Your task to perform on an android device: Go to calendar. Show me events next week Image 0: 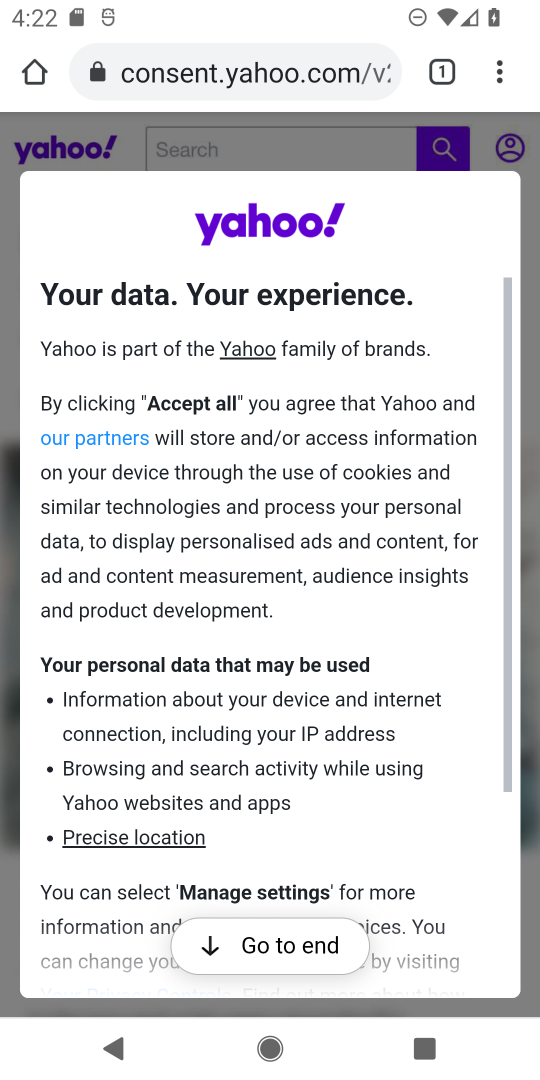
Step 0: press home button
Your task to perform on an android device: Go to calendar. Show me events next week Image 1: 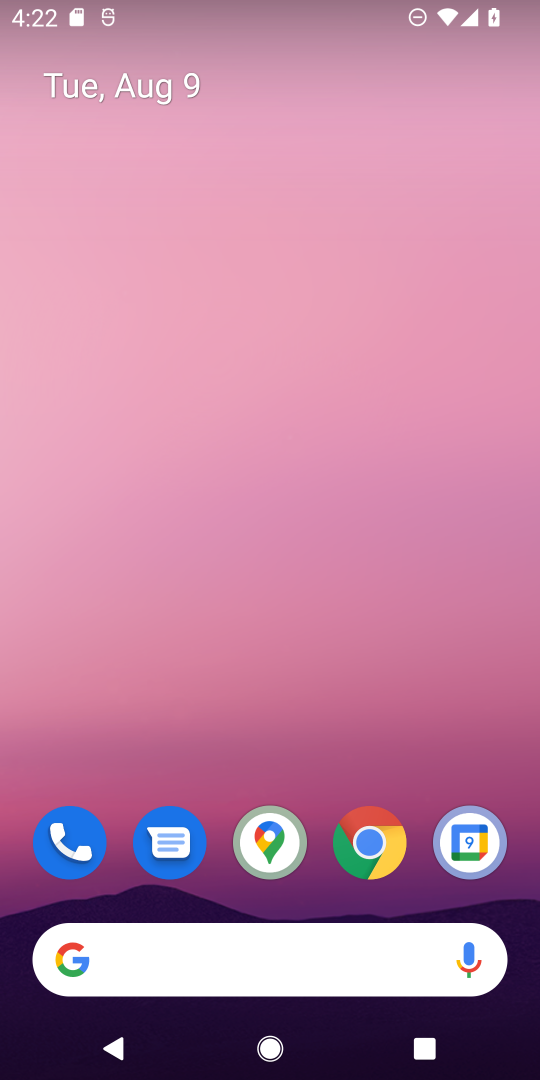
Step 1: drag from (277, 955) to (410, 44)
Your task to perform on an android device: Go to calendar. Show me events next week Image 2: 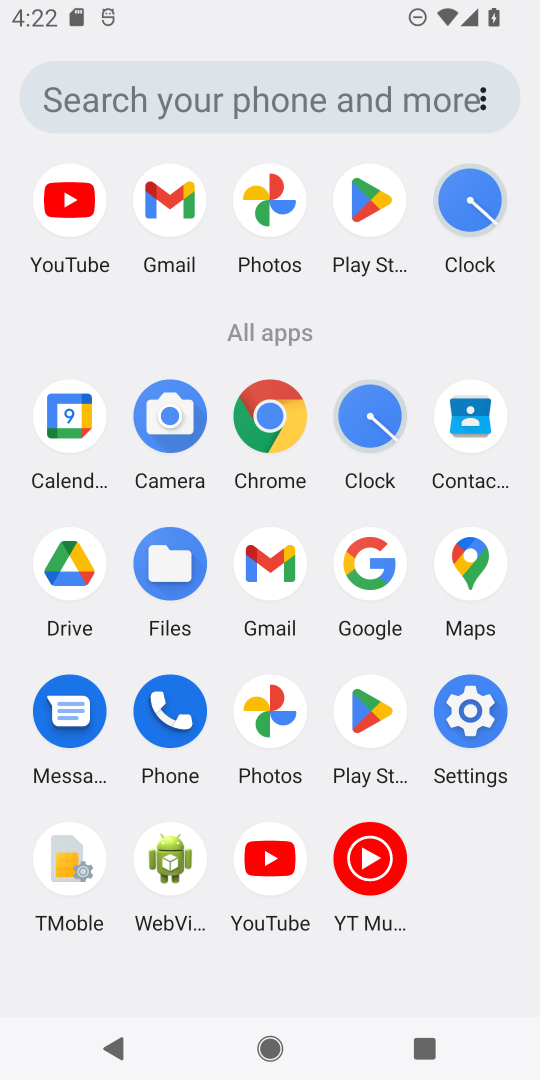
Step 2: click (72, 433)
Your task to perform on an android device: Go to calendar. Show me events next week Image 3: 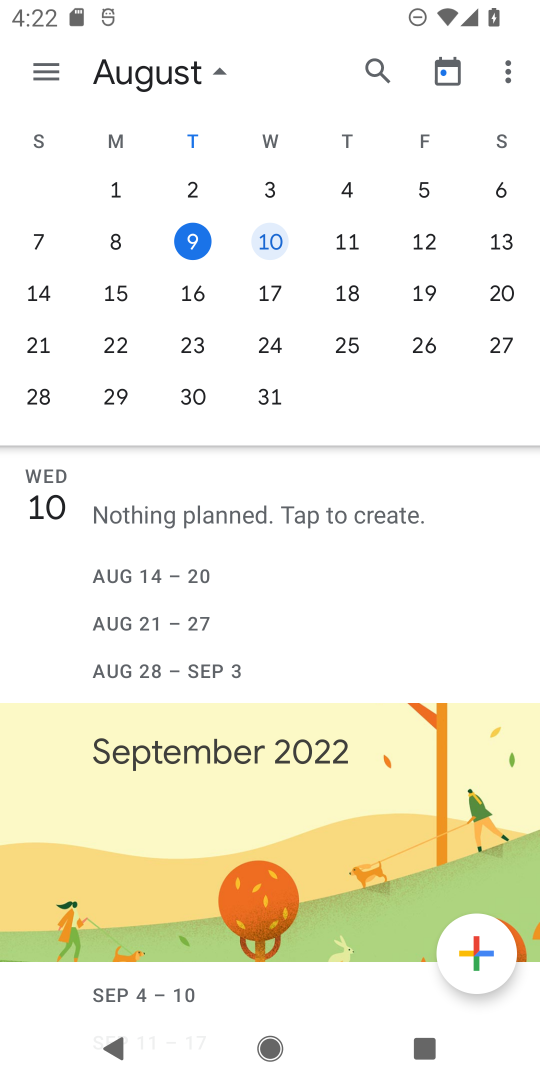
Step 3: click (218, 71)
Your task to perform on an android device: Go to calendar. Show me events next week Image 4: 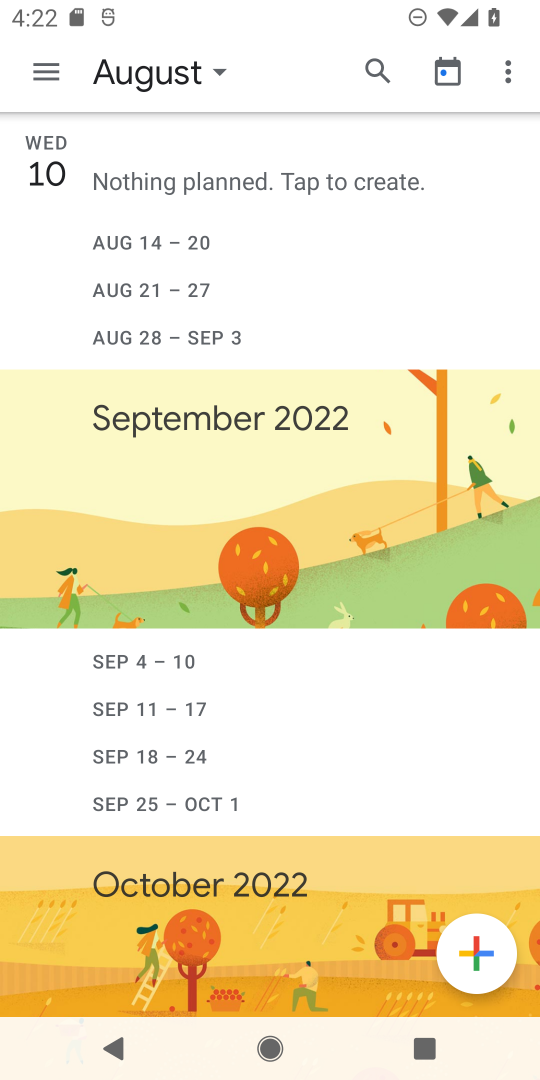
Step 4: click (215, 75)
Your task to perform on an android device: Go to calendar. Show me events next week Image 5: 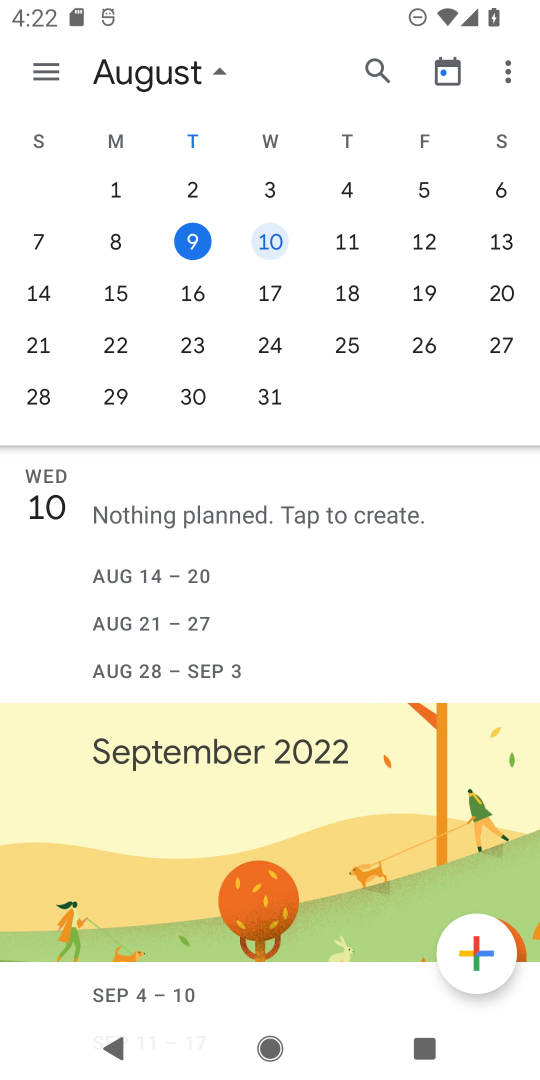
Step 5: click (500, 277)
Your task to perform on an android device: Go to calendar. Show me events next week Image 6: 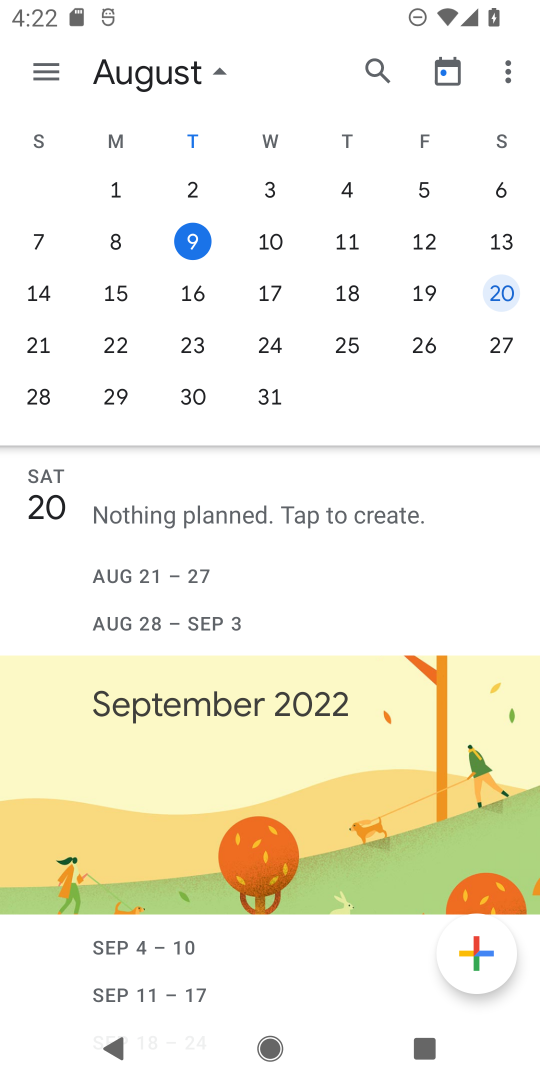
Step 6: click (51, 72)
Your task to perform on an android device: Go to calendar. Show me events next week Image 7: 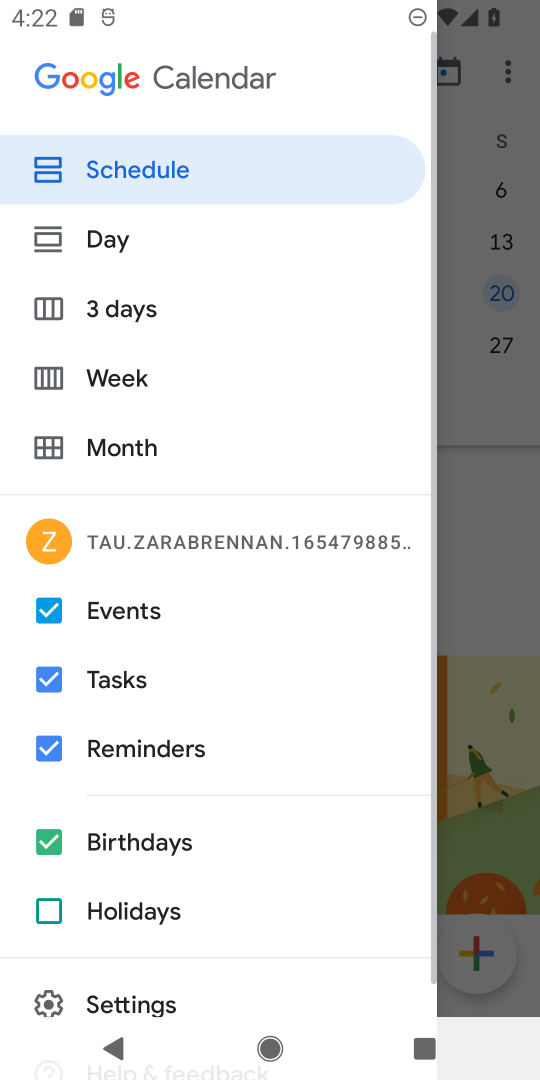
Step 7: click (100, 389)
Your task to perform on an android device: Go to calendar. Show me events next week Image 8: 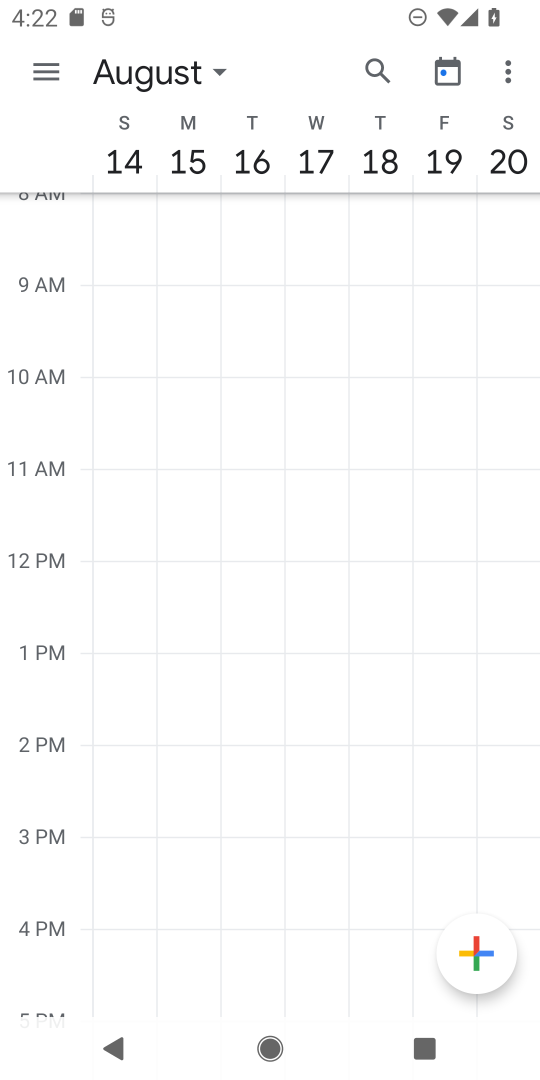
Step 8: task complete